Your task to perform on an android device: Go to settings Image 0: 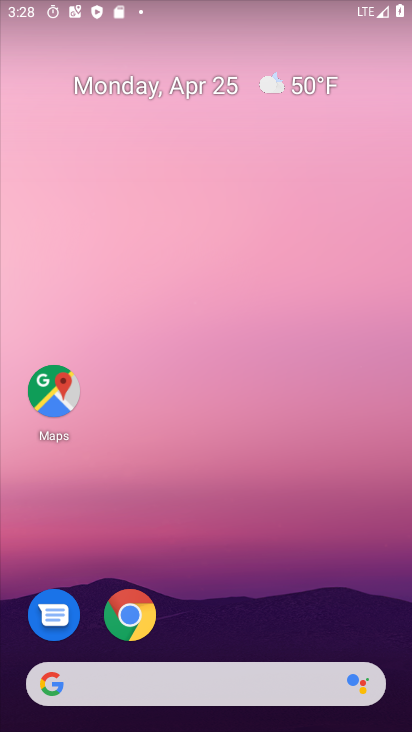
Step 0: drag from (217, 707) to (221, 187)
Your task to perform on an android device: Go to settings Image 1: 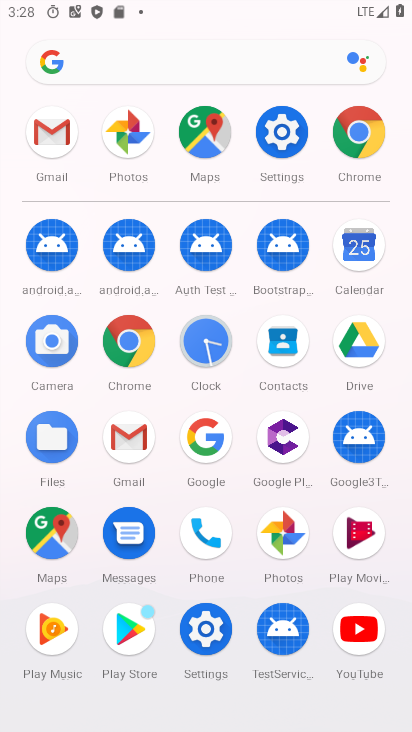
Step 1: click (285, 133)
Your task to perform on an android device: Go to settings Image 2: 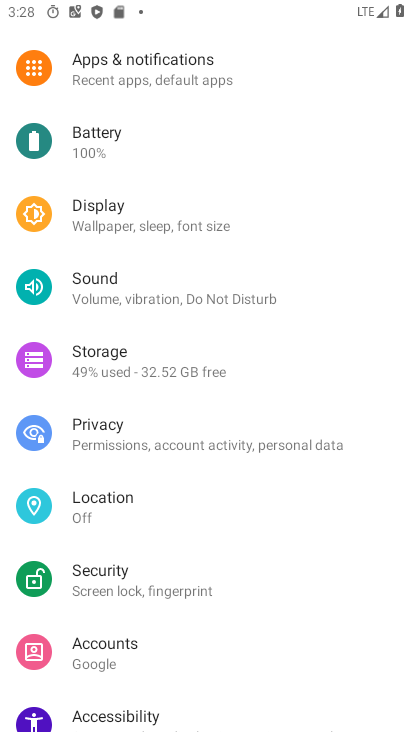
Step 2: task complete